Your task to perform on an android device: open a bookmark in the chrome app Image 0: 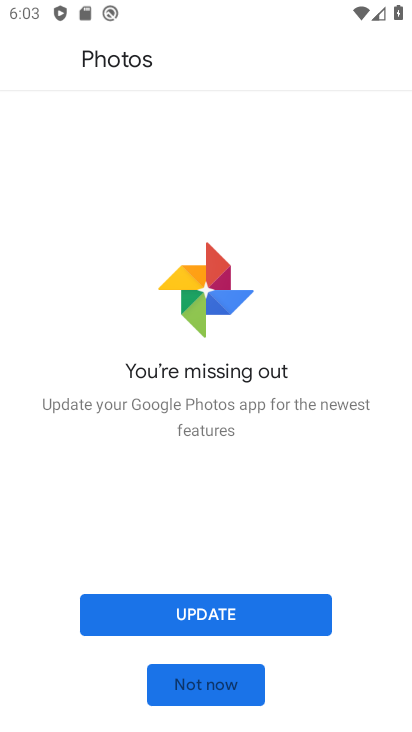
Step 0: press home button
Your task to perform on an android device: open a bookmark in the chrome app Image 1: 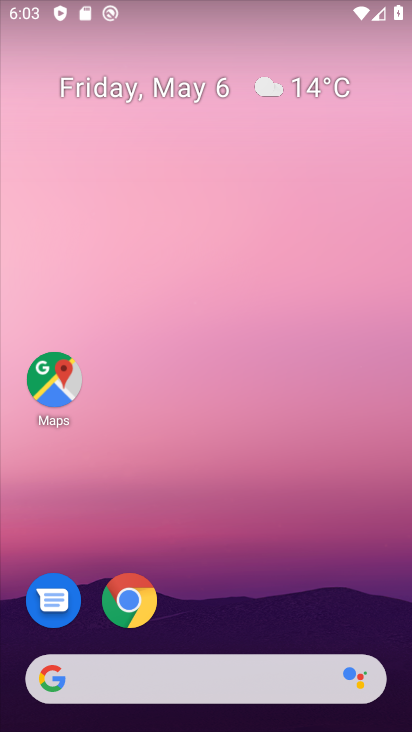
Step 1: click (126, 601)
Your task to perform on an android device: open a bookmark in the chrome app Image 2: 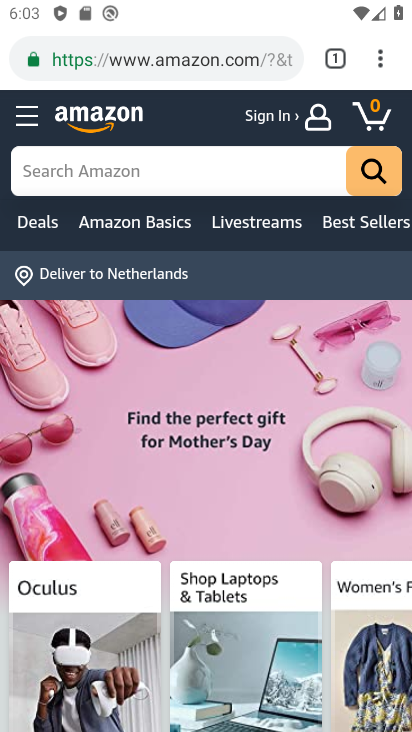
Step 2: click (386, 58)
Your task to perform on an android device: open a bookmark in the chrome app Image 3: 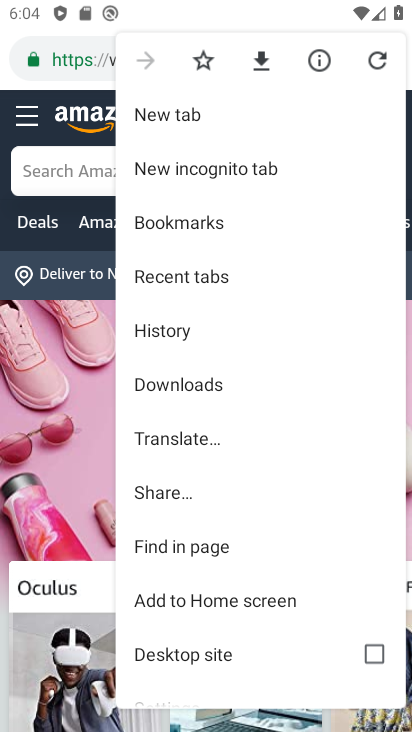
Step 3: click (178, 216)
Your task to perform on an android device: open a bookmark in the chrome app Image 4: 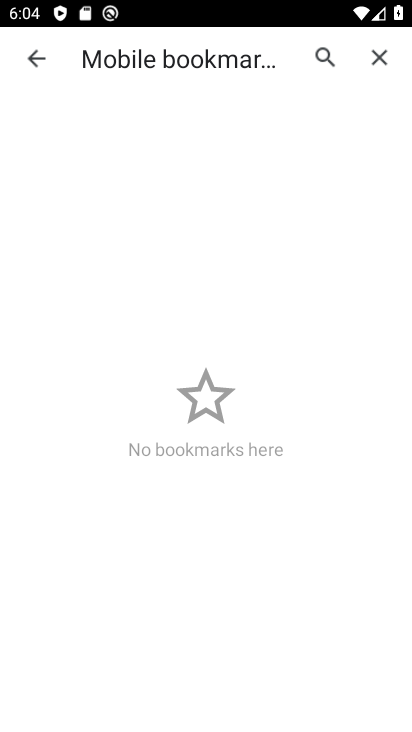
Step 4: task complete